Your task to perform on an android device: What is the news today? Image 0: 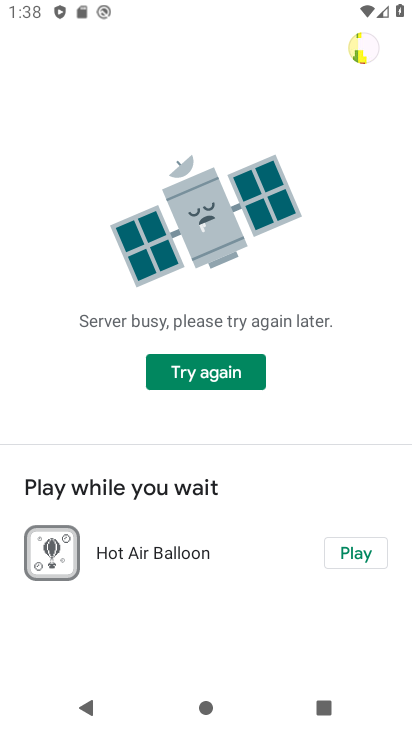
Step 0: press home button
Your task to perform on an android device: What is the news today? Image 1: 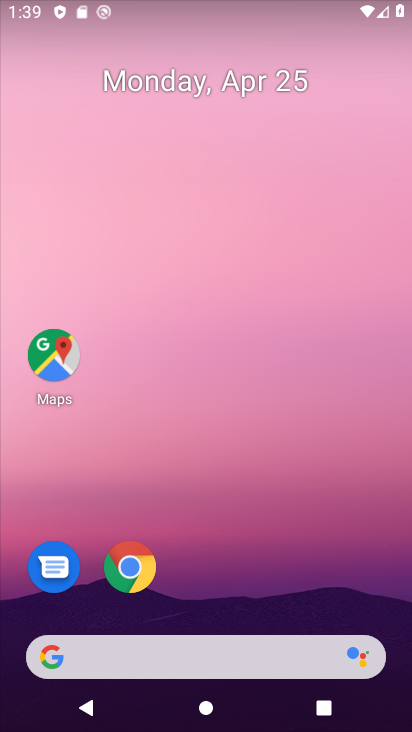
Step 1: click (145, 560)
Your task to perform on an android device: What is the news today? Image 2: 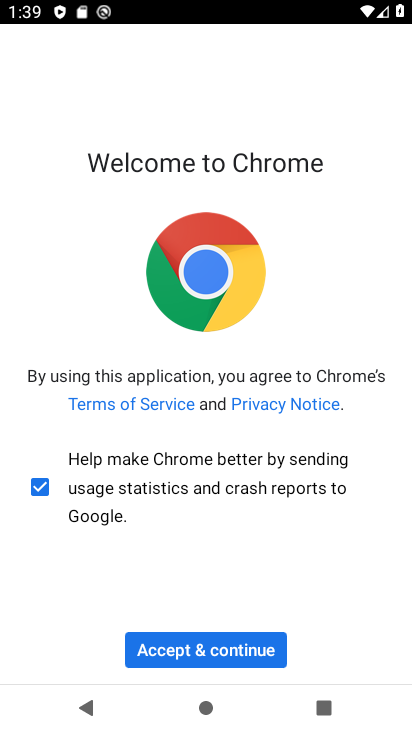
Step 2: click (200, 646)
Your task to perform on an android device: What is the news today? Image 3: 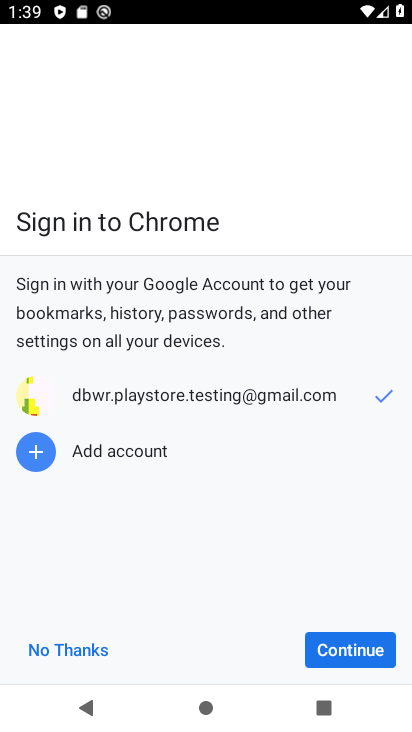
Step 3: click (360, 647)
Your task to perform on an android device: What is the news today? Image 4: 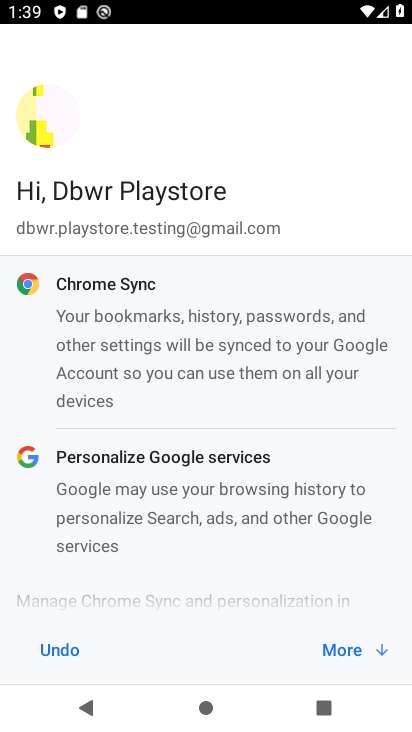
Step 4: click (360, 647)
Your task to perform on an android device: What is the news today? Image 5: 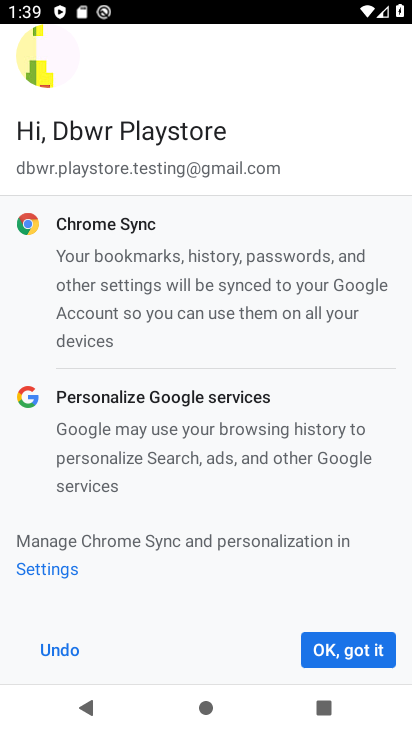
Step 5: click (360, 647)
Your task to perform on an android device: What is the news today? Image 6: 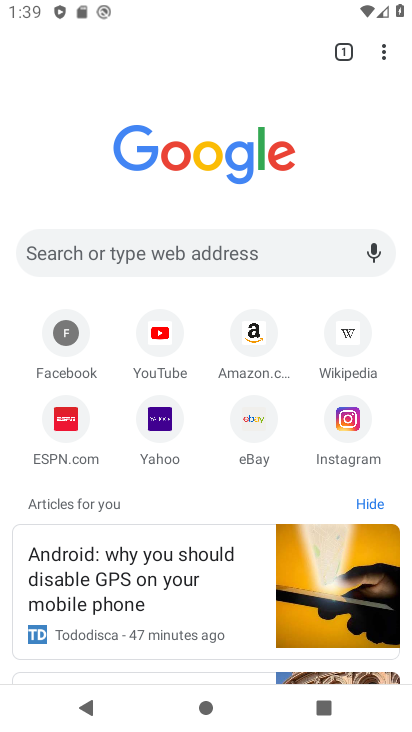
Step 6: click (236, 267)
Your task to perform on an android device: What is the news today? Image 7: 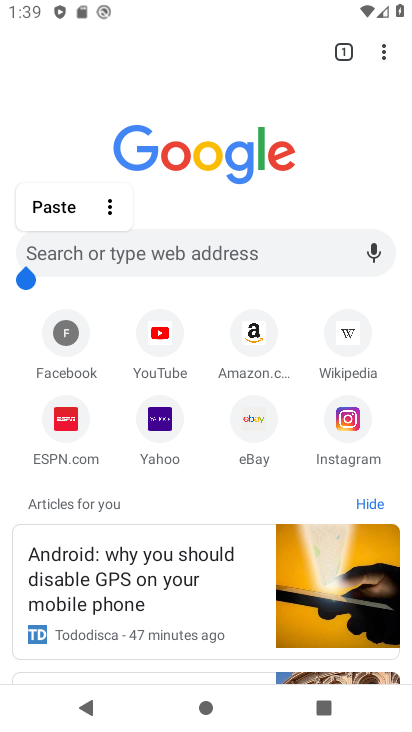
Step 7: click (277, 264)
Your task to perform on an android device: What is the news today? Image 8: 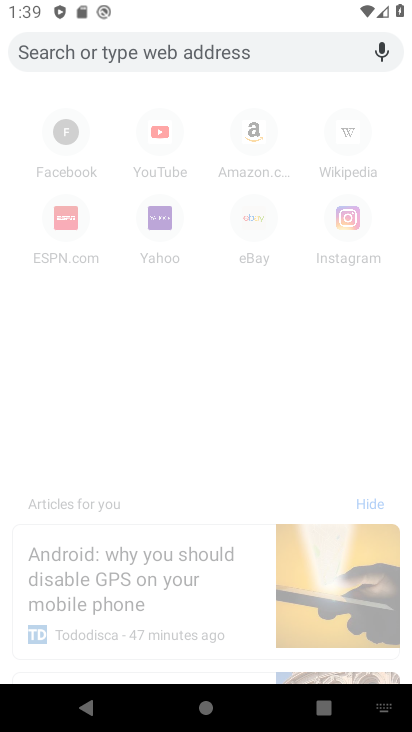
Step 8: type "news"
Your task to perform on an android device: What is the news today? Image 9: 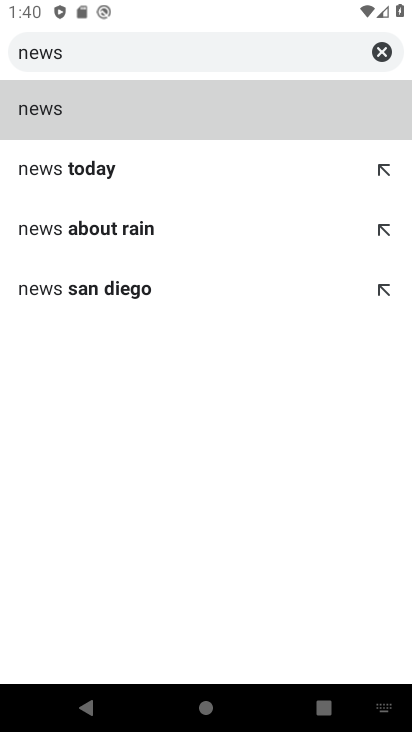
Step 9: type "What is the news today?"
Your task to perform on an android device: What is the news today? Image 10: 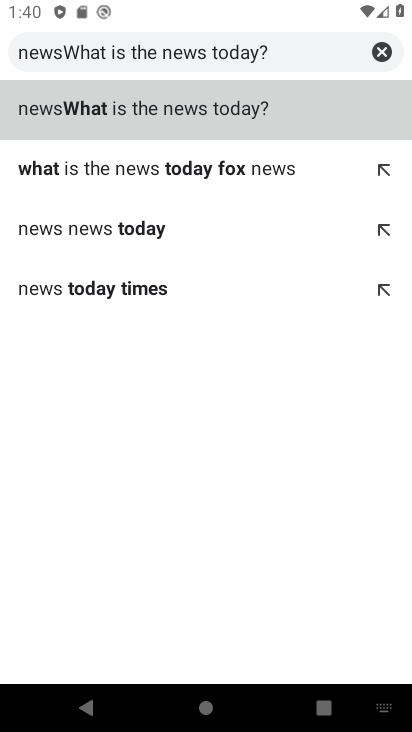
Step 10: click (147, 235)
Your task to perform on an android device: What is the news today? Image 11: 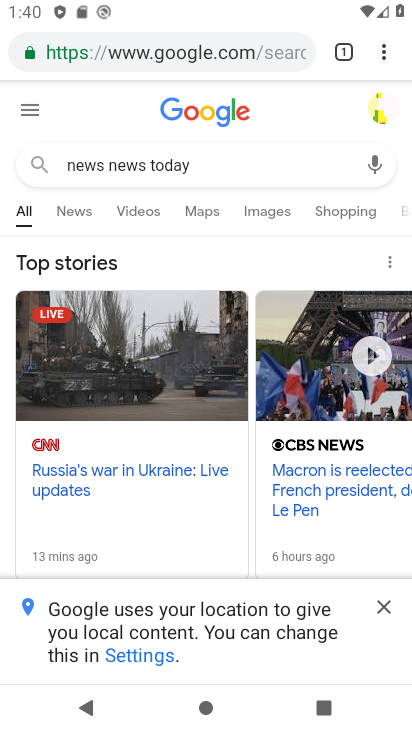
Step 11: task complete